Your task to perform on an android device: turn on airplane mode Image 0: 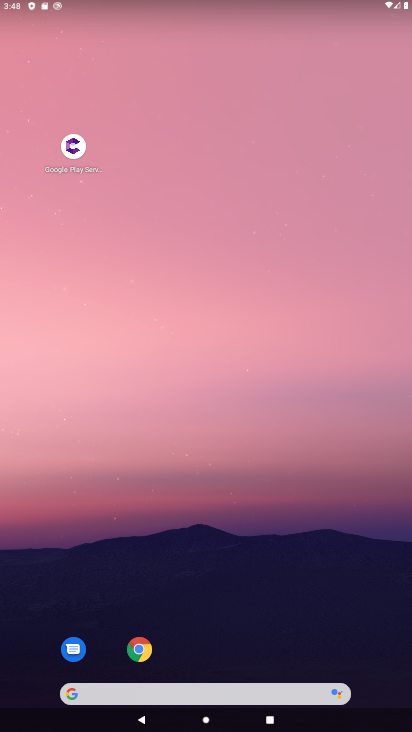
Step 0: drag from (278, 660) to (215, 167)
Your task to perform on an android device: turn on airplane mode Image 1: 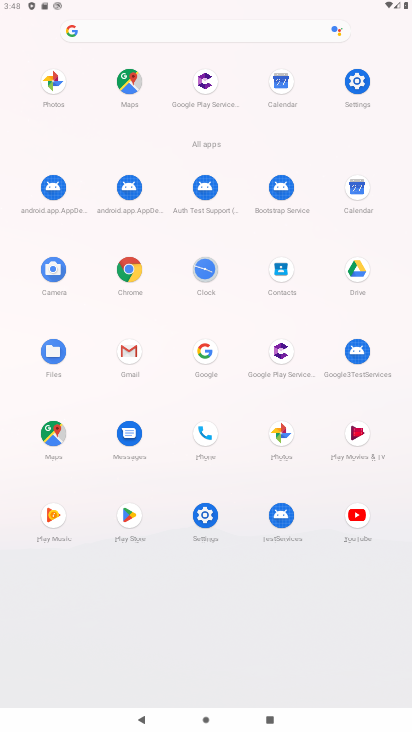
Step 1: click (366, 64)
Your task to perform on an android device: turn on airplane mode Image 2: 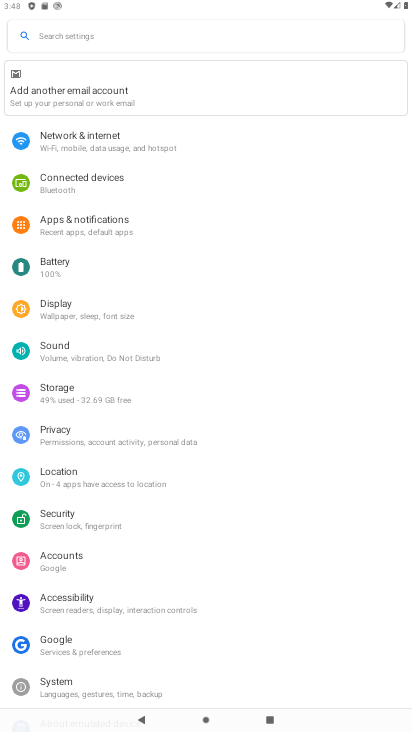
Step 2: click (200, 143)
Your task to perform on an android device: turn on airplane mode Image 3: 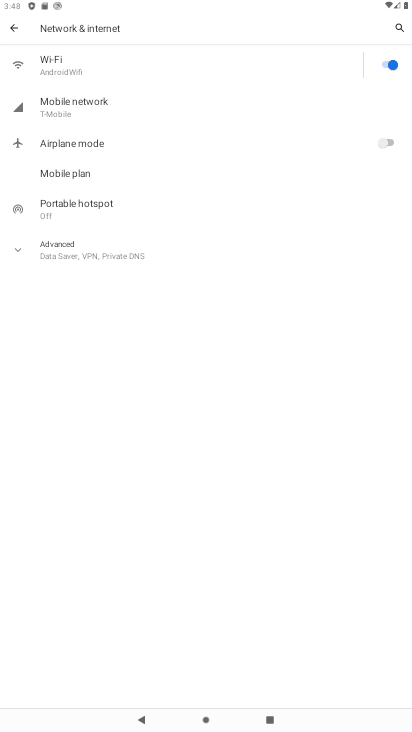
Step 3: click (283, 141)
Your task to perform on an android device: turn on airplane mode Image 4: 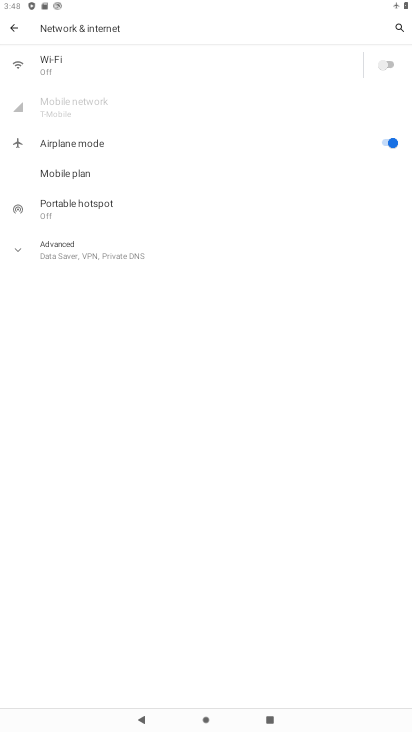
Step 4: task complete